Your task to perform on an android device: visit the assistant section in the google photos Image 0: 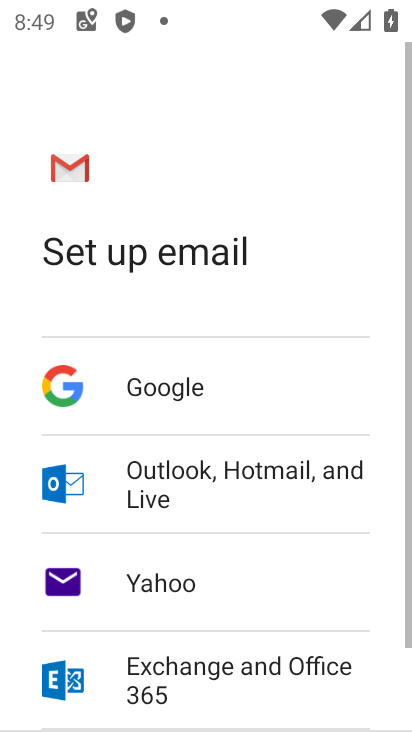
Step 0: press home button
Your task to perform on an android device: visit the assistant section in the google photos Image 1: 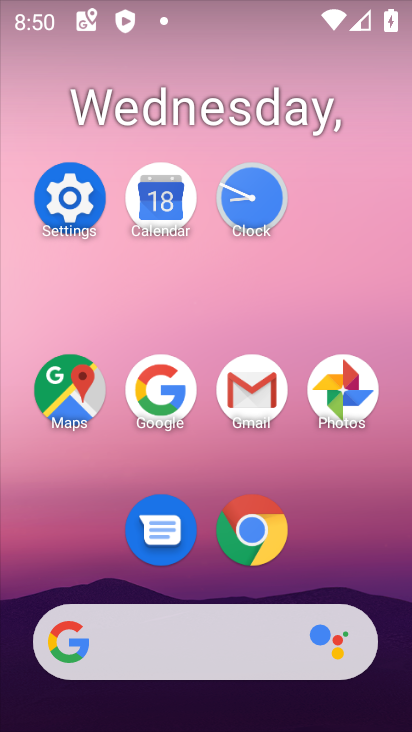
Step 1: click (335, 406)
Your task to perform on an android device: visit the assistant section in the google photos Image 2: 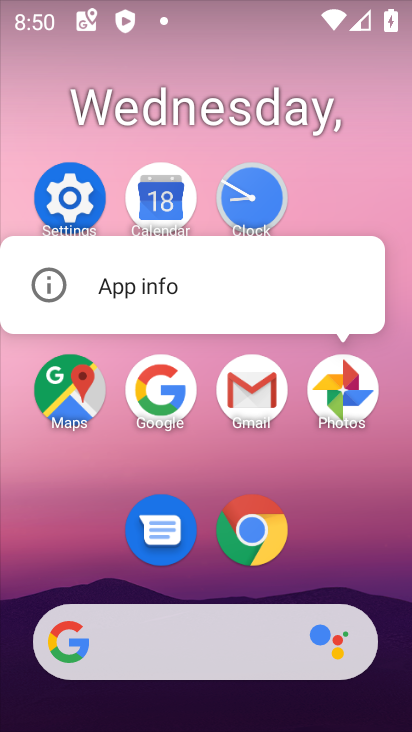
Step 2: click (355, 394)
Your task to perform on an android device: visit the assistant section in the google photos Image 3: 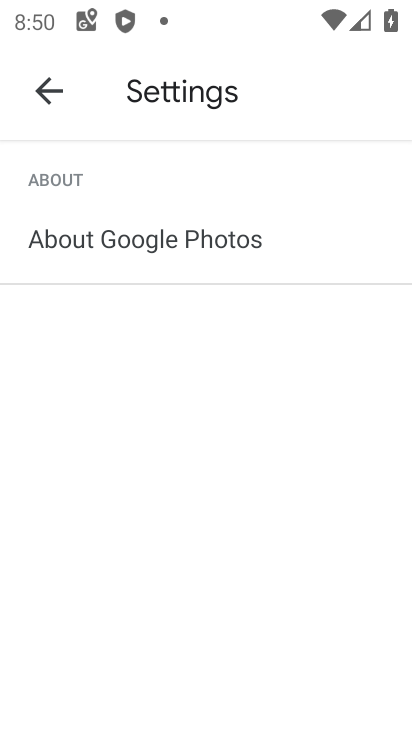
Step 3: click (68, 94)
Your task to perform on an android device: visit the assistant section in the google photos Image 4: 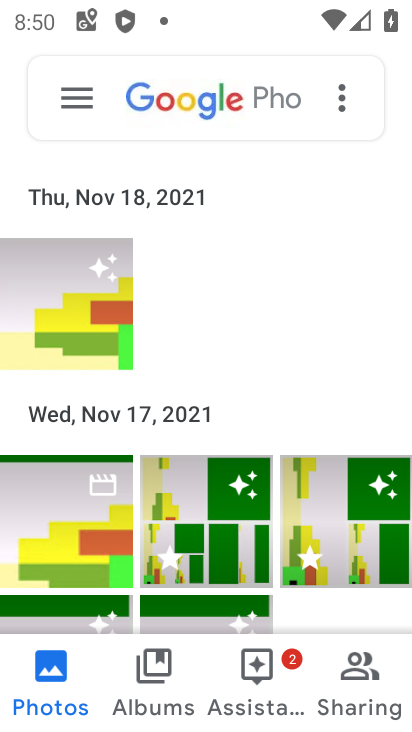
Step 4: click (282, 674)
Your task to perform on an android device: visit the assistant section in the google photos Image 5: 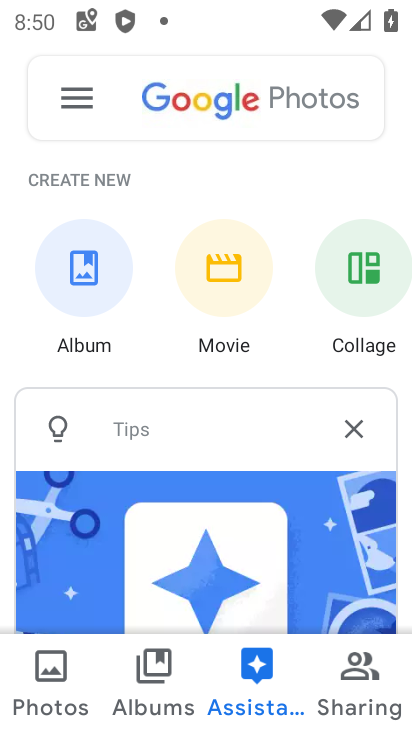
Step 5: task complete